Your task to perform on an android device: Clear the cart on bestbuy.com. Search for energizer triple a on bestbuy.com, select the first entry, add it to the cart, then select checkout. Image 0: 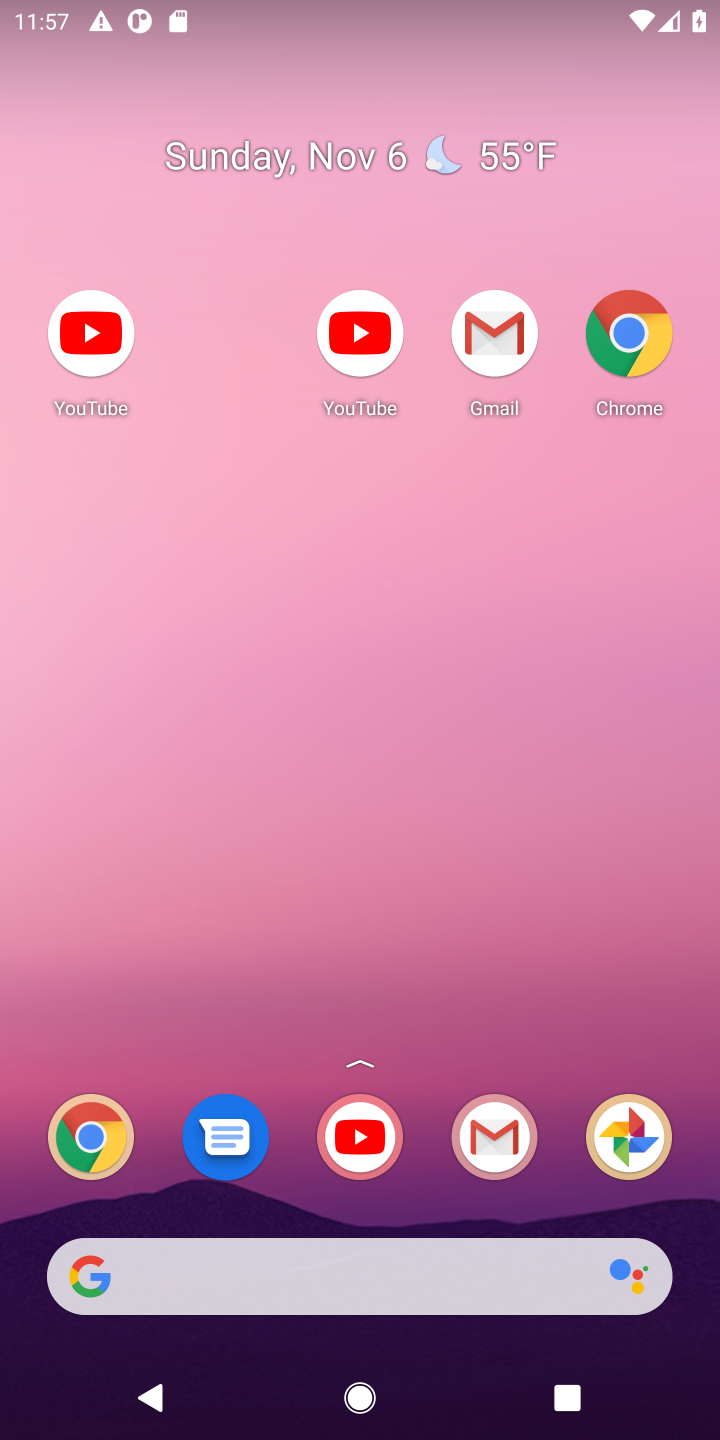
Step 0: drag from (416, 1210) to (358, 206)
Your task to perform on an android device: Clear the cart on bestbuy.com. Search for energizer triple a on bestbuy.com, select the first entry, add it to the cart, then select checkout. Image 1: 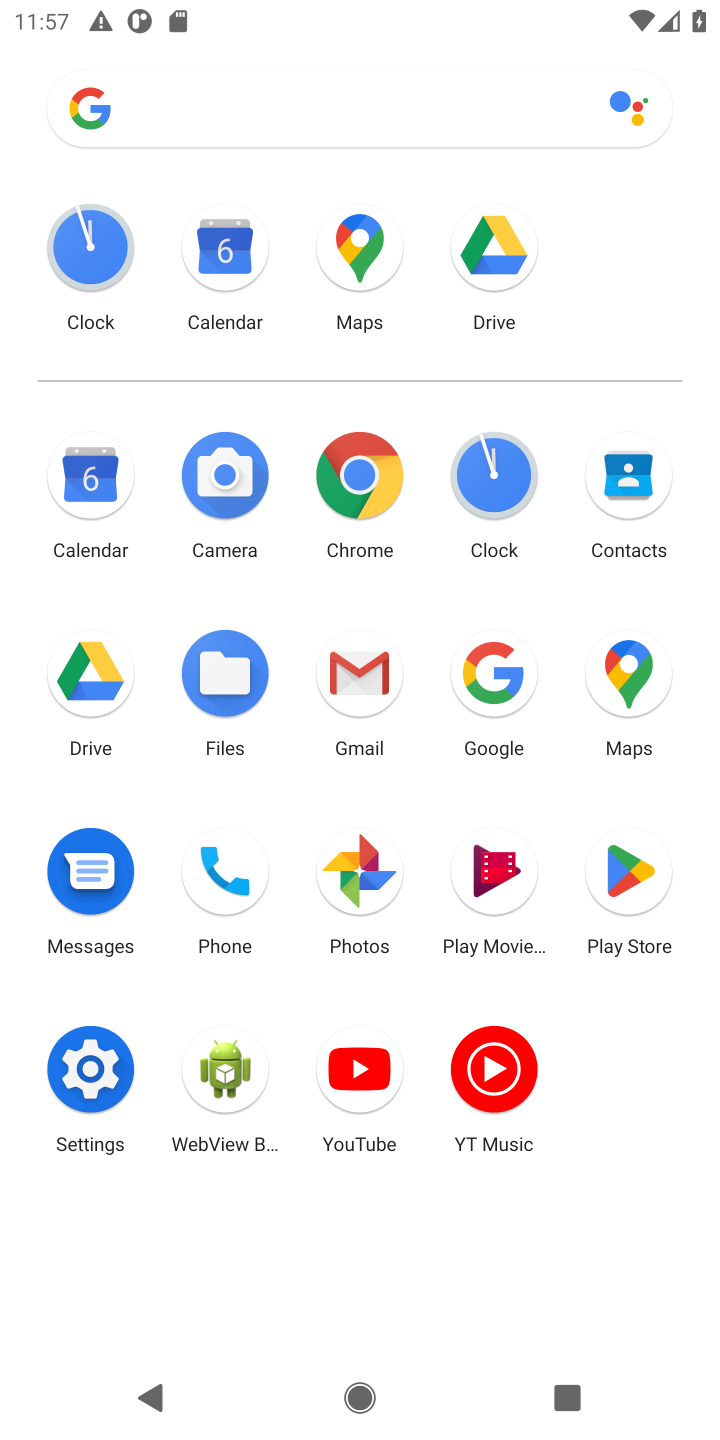
Step 1: click (356, 481)
Your task to perform on an android device: Clear the cart on bestbuy.com. Search for energizer triple a on bestbuy.com, select the first entry, add it to the cart, then select checkout. Image 2: 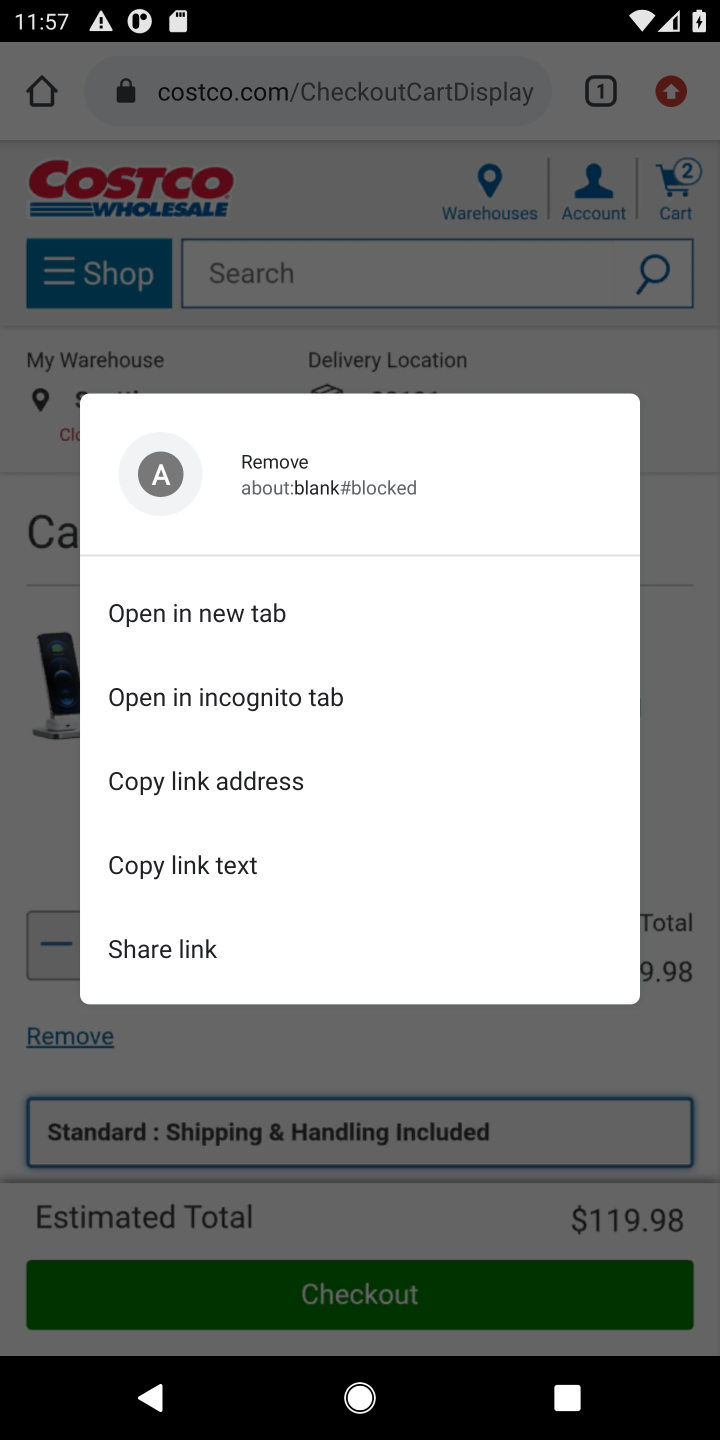
Step 2: press home button
Your task to perform on an android device: Clear the cart on bestbuy.com. Search for energizer triple a on bestbuy.com, select the first entry, add it to the cart, then select checkout. Image 3: 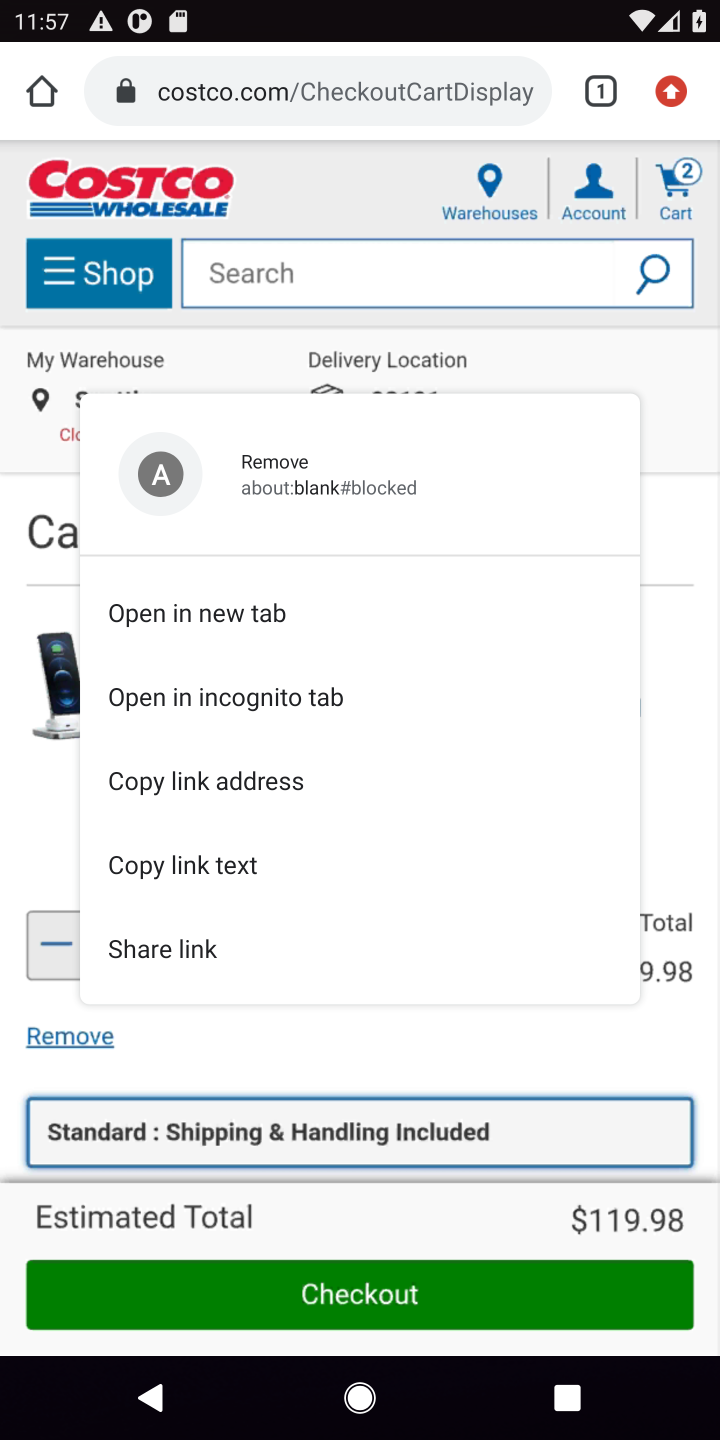
Step 3: press home button
Your task to perform on an android device: Clear the cart on bestbuy.com. Search for energizer triple a on bestbuy.com, select the first entry, add it to the cart, then select checkout. Image 4: 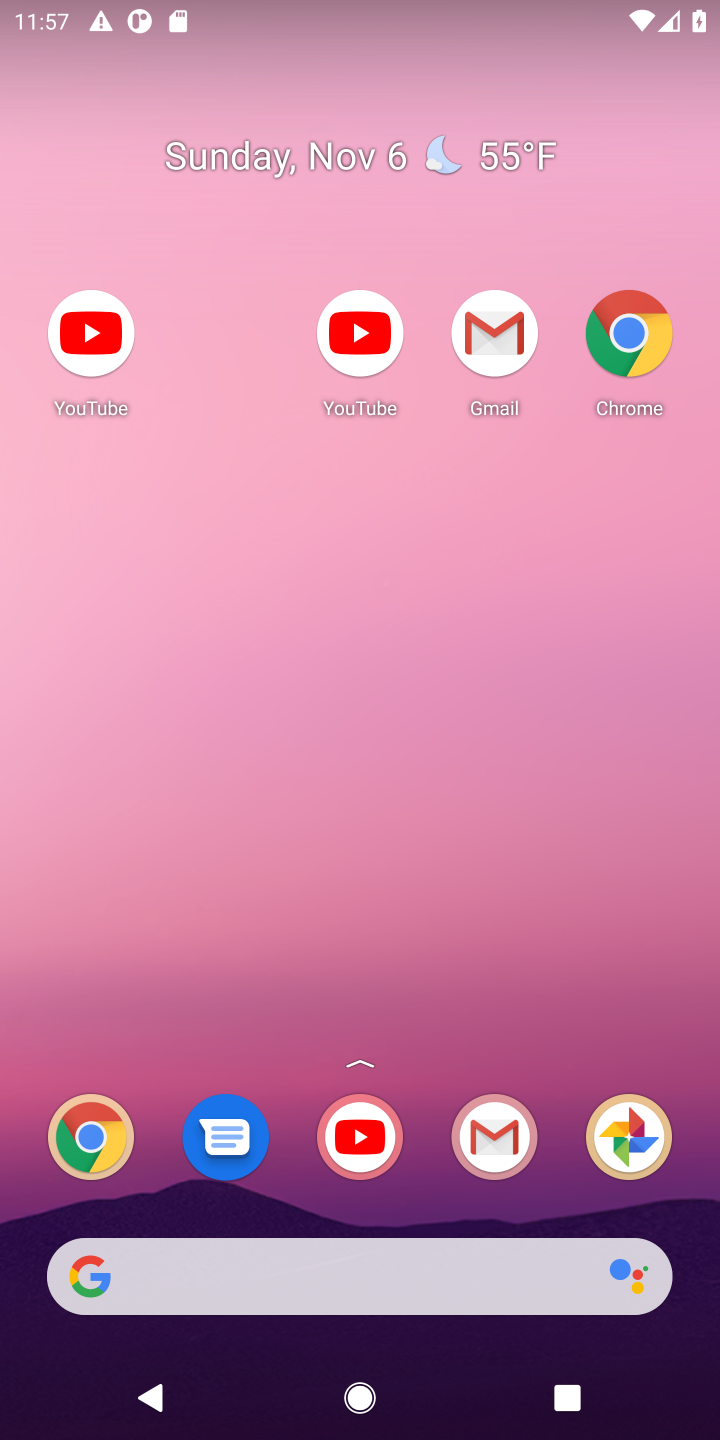
Step 4: drag from (422, 1228) to (397, 207)
Your task to perform on an android device: Clear the cart on bestbuy.com. Search for energizer triple a on bestbuy.com, select the first entry, add it to the cart, then select checkout. Image 5: 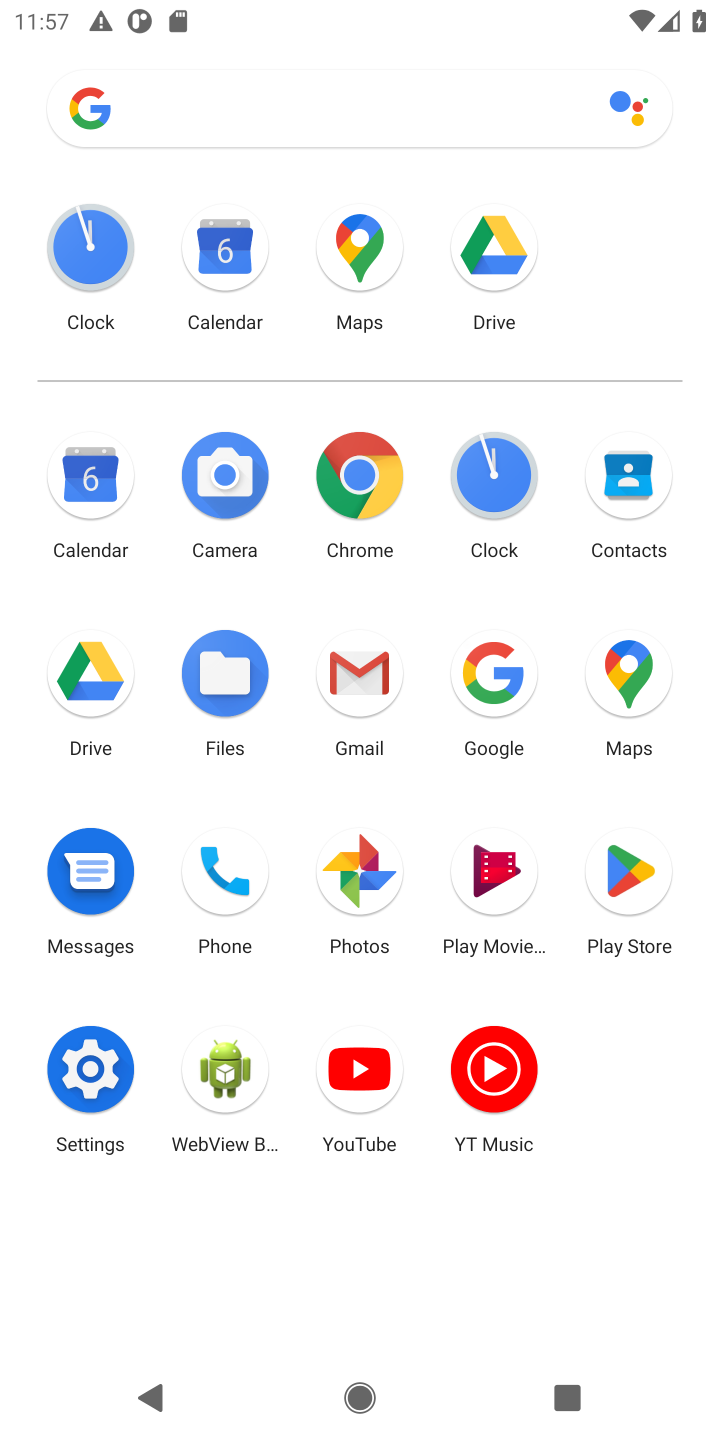
Step 5: click (366, 476)
Your task to perform on an android device: Clear the cart on bestbuy.com. Search for energizer triple a on bestbuy.com, select the first entry, add it to the cart, then select checkout. Image 6: 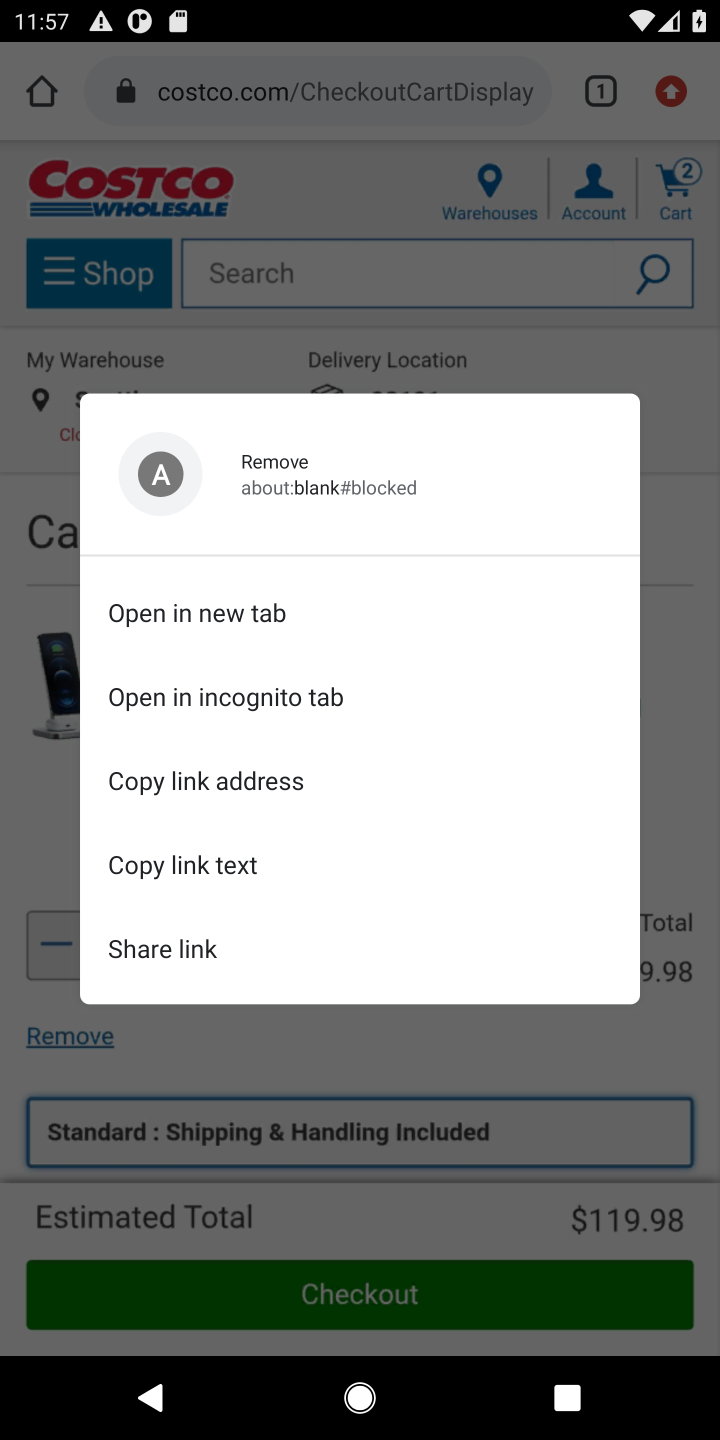
Step 6: click (406, 164)
Your task to perform on an android device: Clear the cart on bestbuy.com. Search for energizer triple a on bestbuy.com, select the first entry, add it to the cart, then select checkout. Image 7: 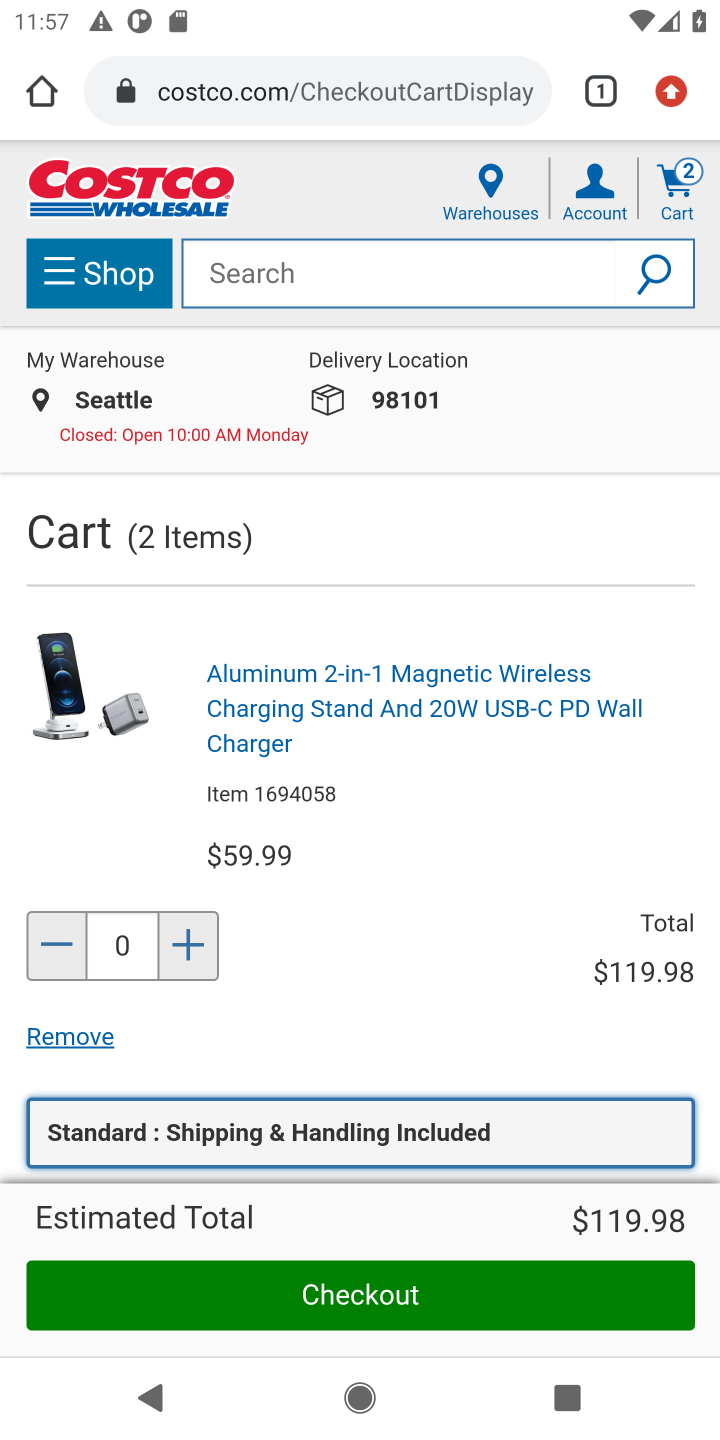
Step 7: click (360, 99)
Your task to perform on an android device: Clear the cart on bestbuy.com. Search for energizer triple a on bestbuy.com, select the first entry, add it to the cart, then select checkout. Image 8: 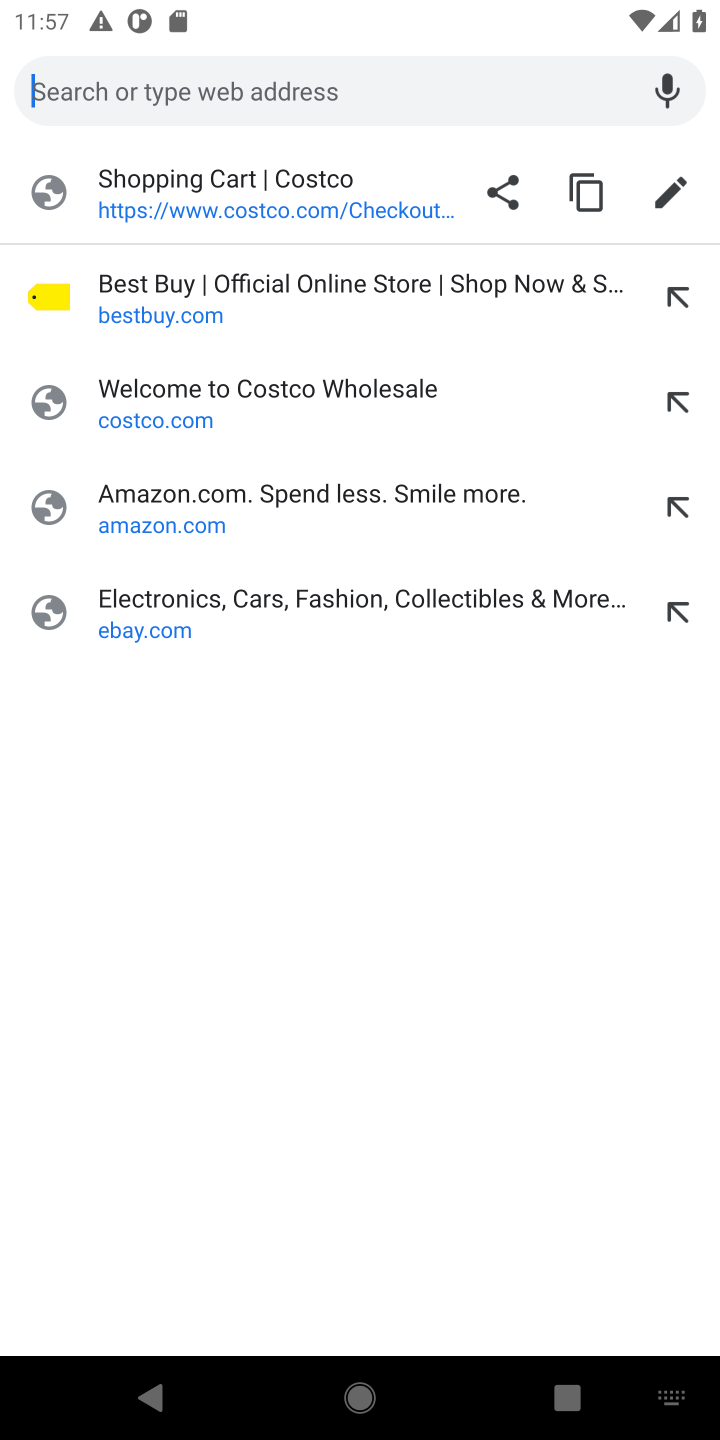
Step 8: type ""
Your task to perform on an android device: Clear the cart on bestbuy.com. Search for energizer triple a on bestbuy.com, select the first entry, add it to the cart, then select checkout. Image 9: 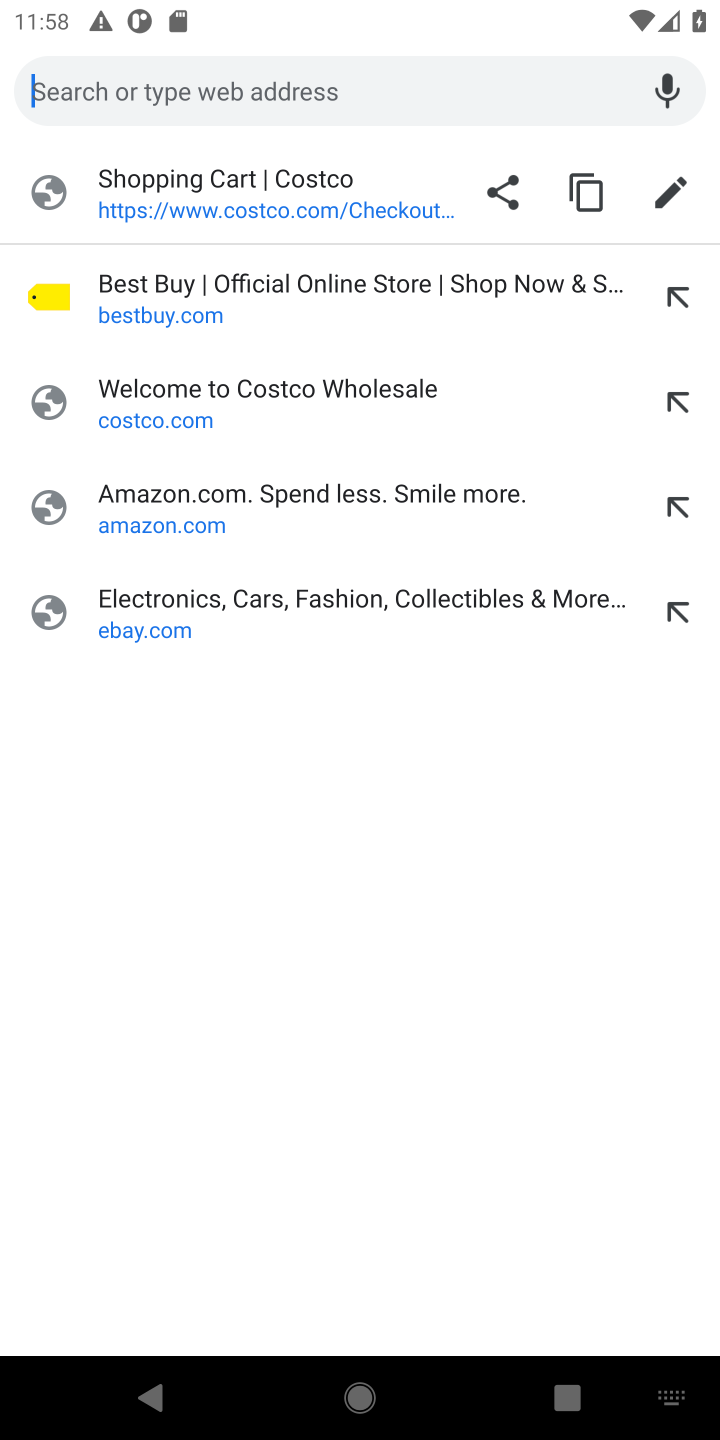
Step 9: type "bestbuy.com"
Your task to perform on an android device: Clear the cart on bestbuy.com. Search for energizer triple a on bestbuy.com, select the first entry, add it to the cart, then select checkout. Image 10: 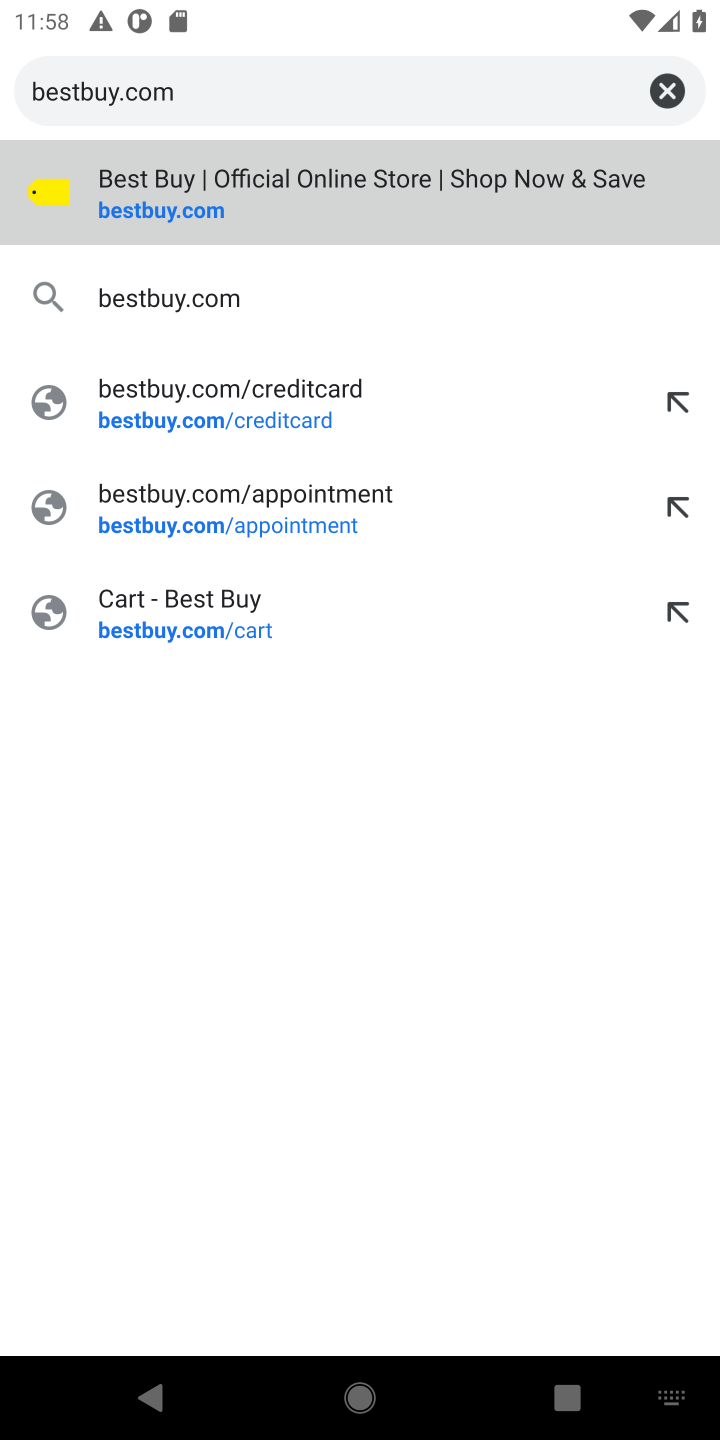
Step 10: press enter
Your task to perform on an android device: Clear the cart on bestbuy.com. Search for energizer triple a on bestbuy.com, select the first entry, add it to the cart, then select checkout. Image 11: 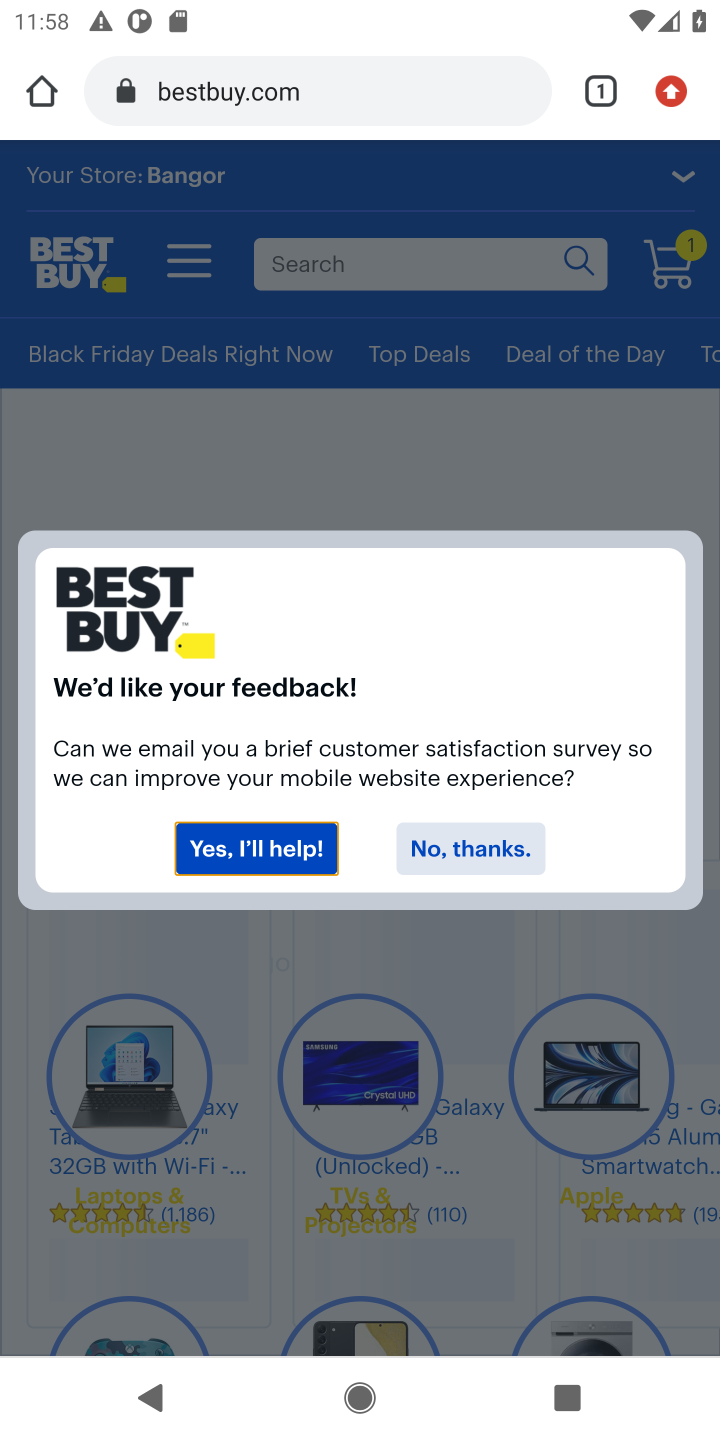
Step 11: click (450, 858)
Your task to perform on an android device: Clear the cart on bestbuy.com. Search for energizer triple a on bestbuy.com, select the first entry, add it to the cart, then select checkout. Image 12: 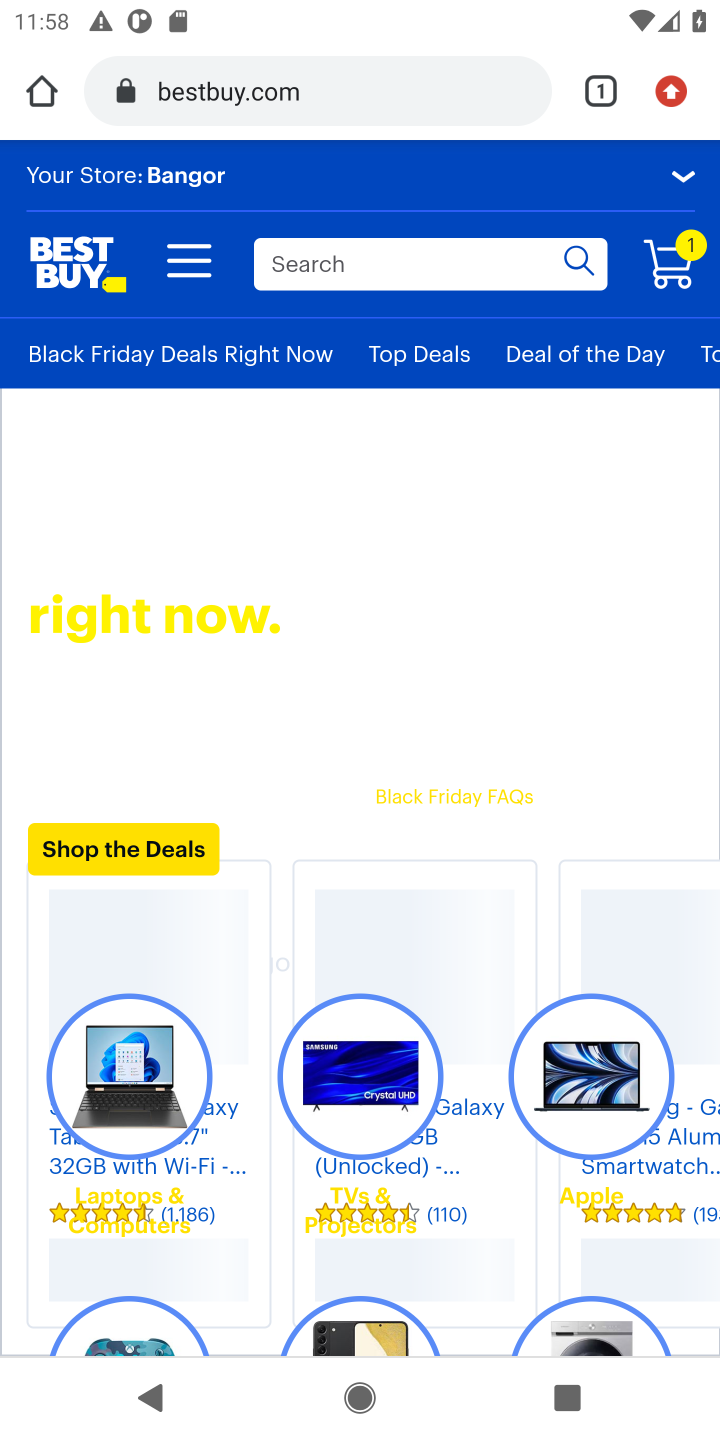
Step 12: click (681, 259)
Your task to perform on an android device: Clear the cart on bestbuy.com. Search for energizer triple a on bestbuy.com, select the first entry, add it to the cart, then select checkout. Image 13: 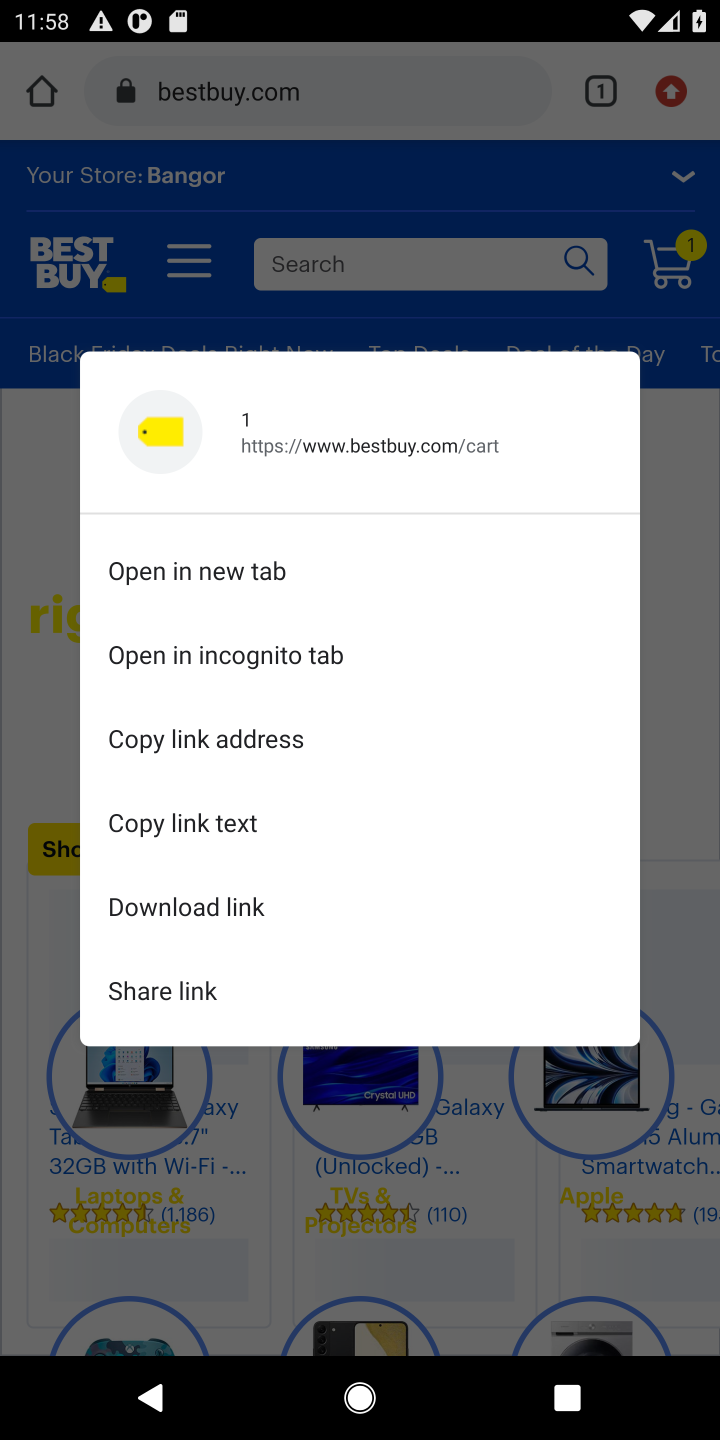
Step 13: click (691, 391)
Your task to perform on an android device: Clear the cart on bestbuy.com. Search for energizer triple a on bestbuy.com, select the first entry, add it to the cart, then select checkout. Image 14: 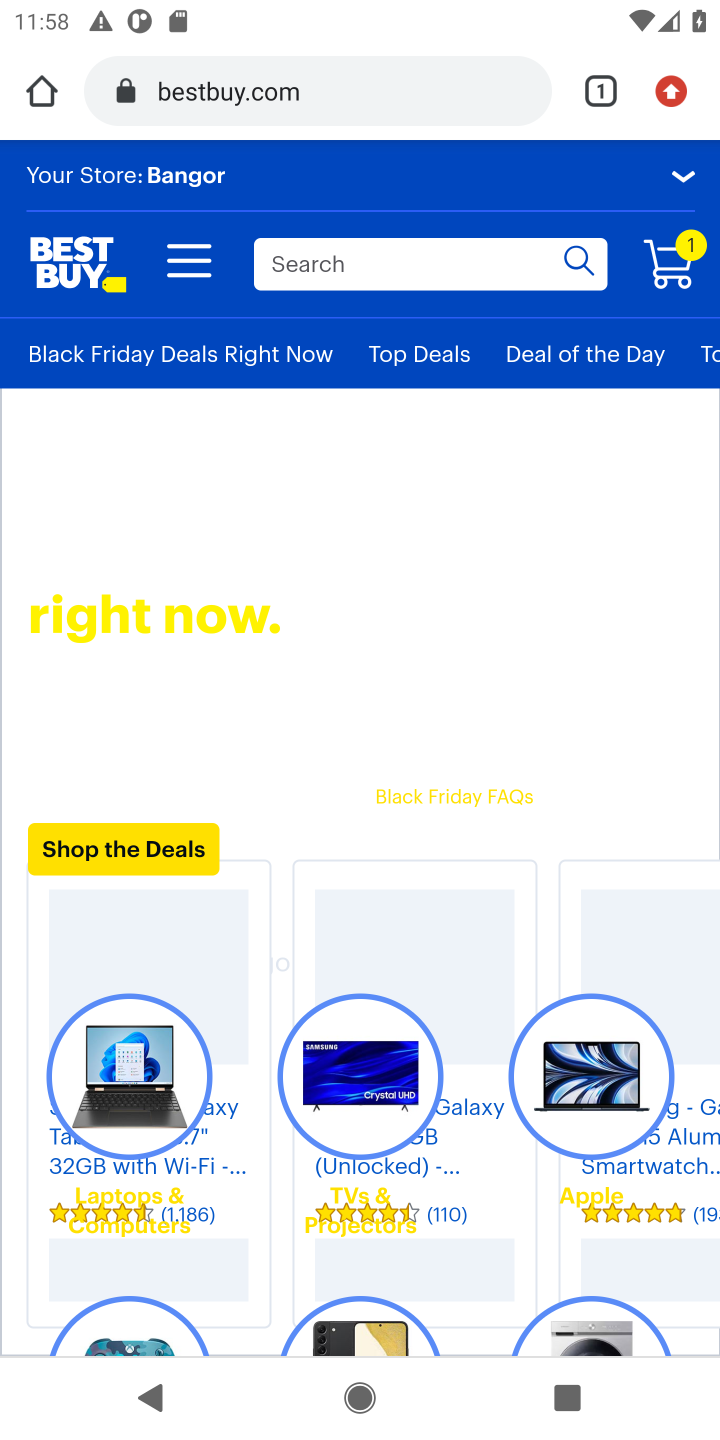
Step 14: click (695, 259)
Your task to perform on an android device: Clear the cart on bestbuy.com. Search for energizer triple a on bestbuy.com, select the first entry, add it to the cart, then select checkout. Image 15: 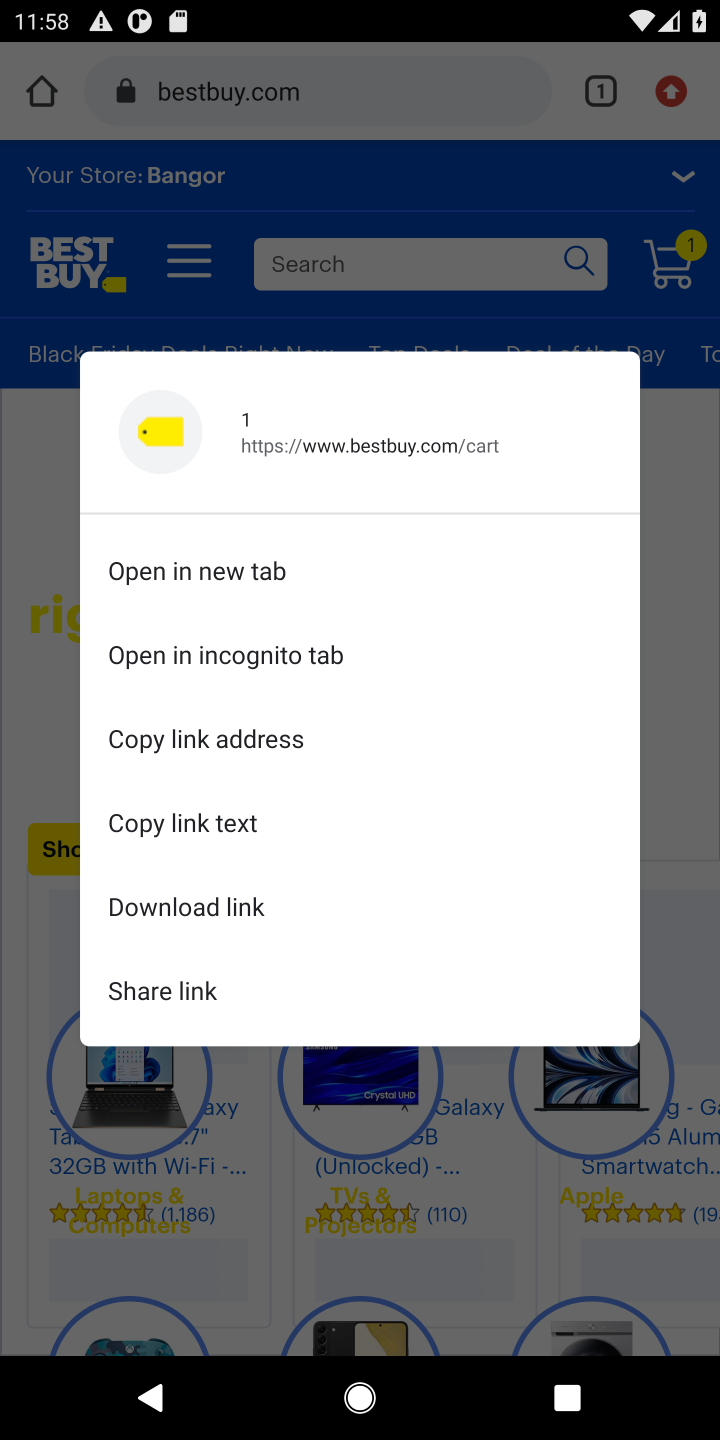
Step 15: click (667, 258)
Your task to perform on an android device: Clear the cart on bestbuy.com. Search for energizer triple a on bestbuy.com, select the first entry, add it to the cart, then select checkout. Image 16: 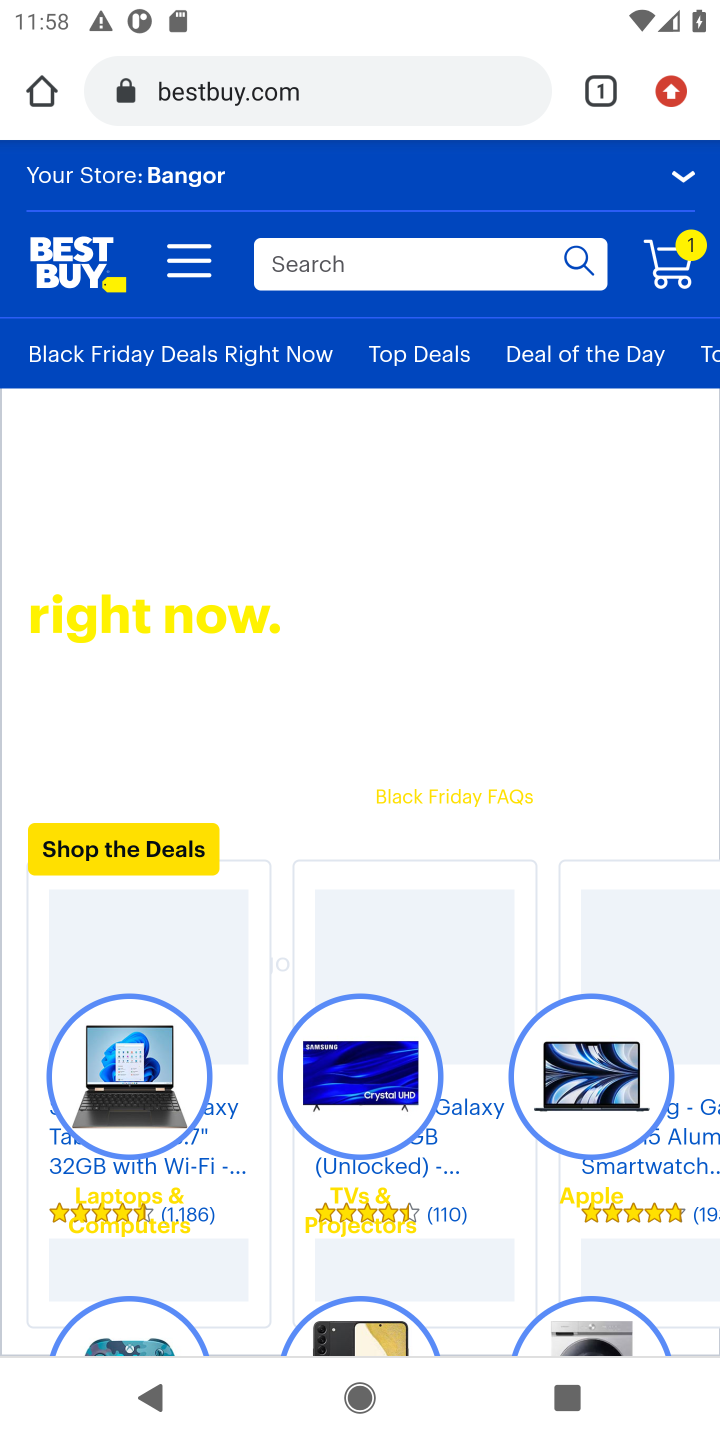
Step 16: click (667, 258)
Your task to perform on an android device: Clear the cart on bestbuy.com. Search for energizer triple a on bestbuy.com, select the first entry, add it to the cart, then select checkout. Image 17: 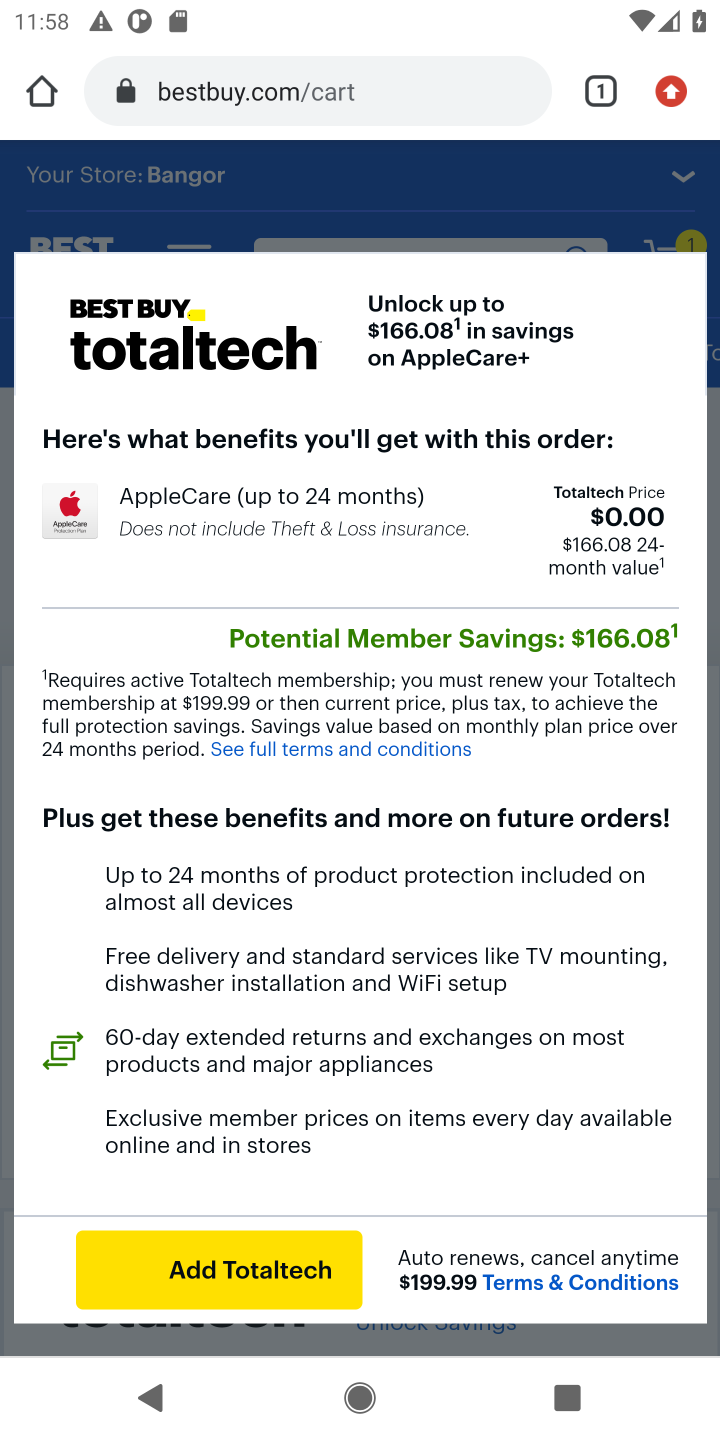
Step 17: drag from (544, 960) to (525, 688)
Your task to perform on an android device: Clear the cart on bestbuy.com. Search for energizer triple a on bestbuy.com, select the first entry, add it to the cart, then select checkout. Image 18: 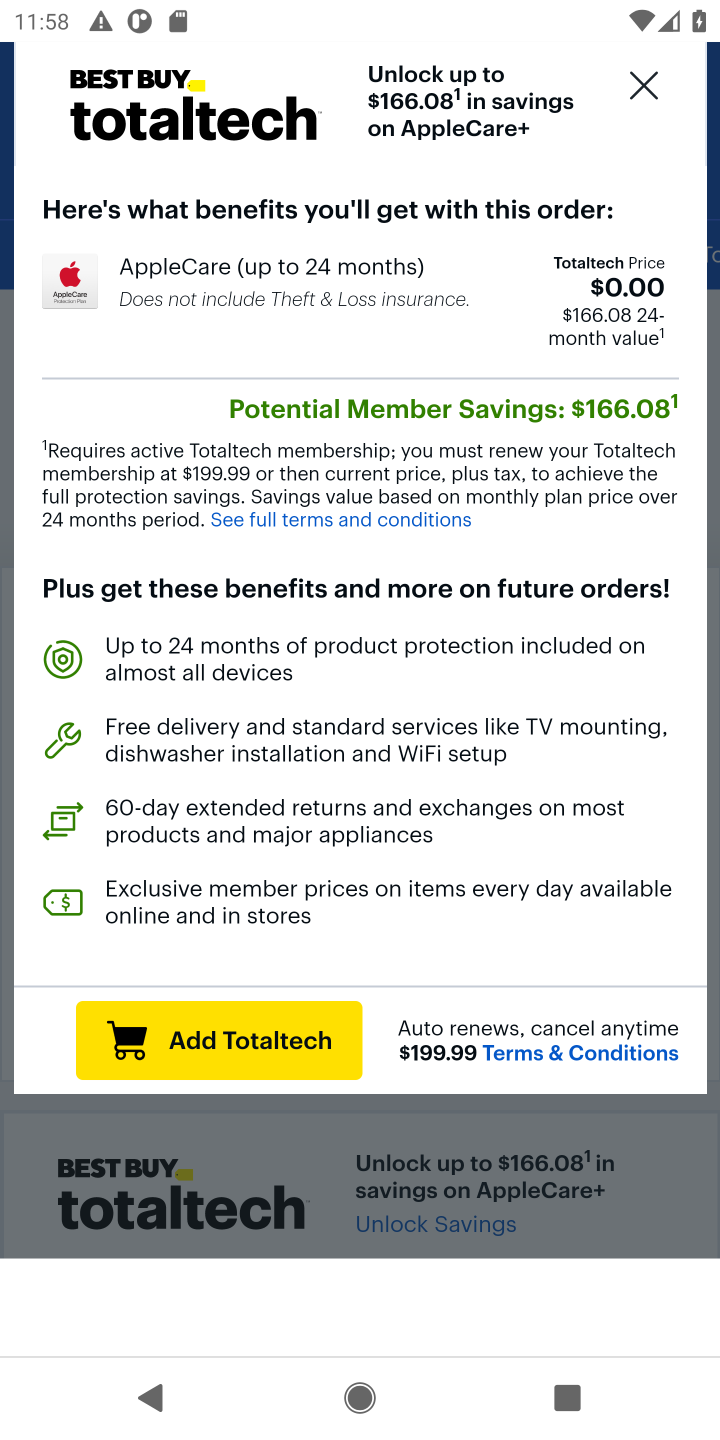
Step 18: click (647, 84)
Your task to perform on an android device: Clear the cart on bestbuy.com. Search for energizer triple a on bestbuy.com, select the first entry, add it to the cart, then select checkout. Image 19: 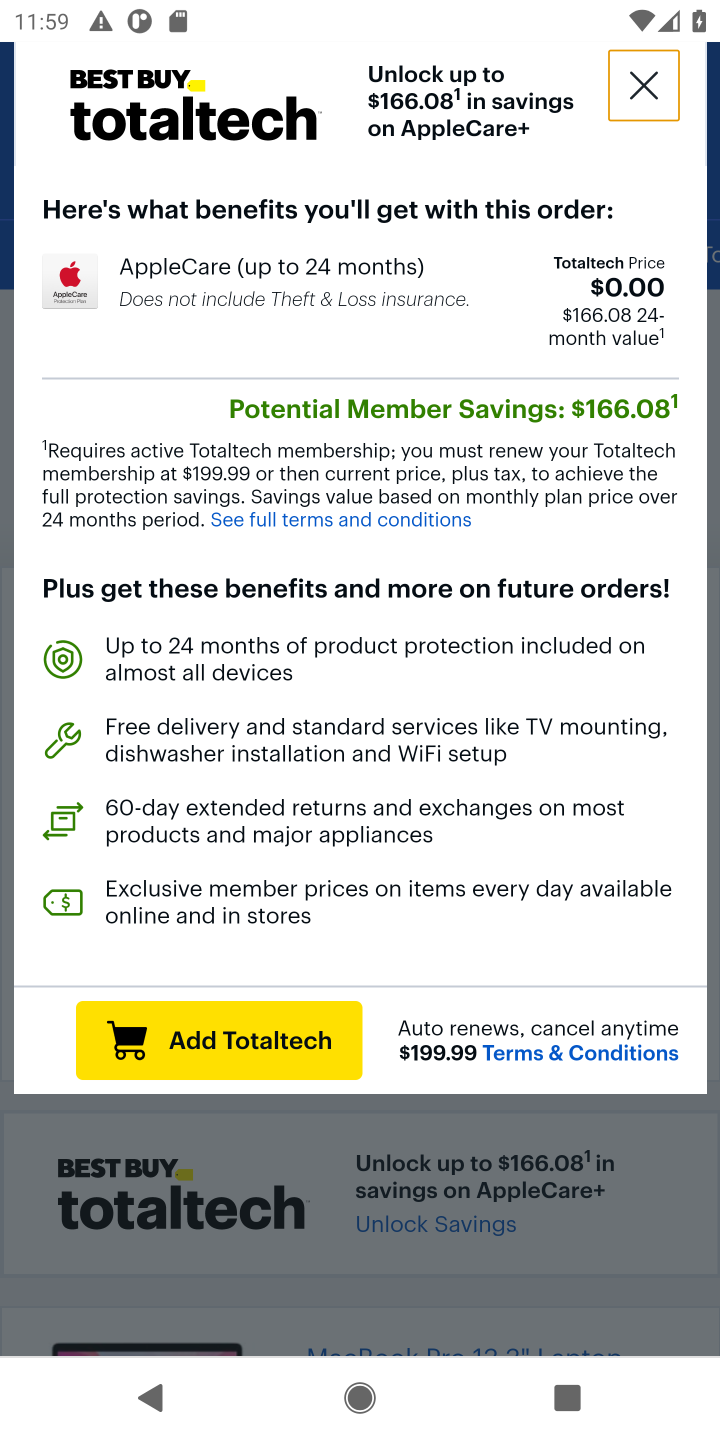
Step 19: click (647, 84)
Your task to perform on an android device: Clear the cart on bestbuy.com. Search for energizer triple a on bestbuy.com, select the first entry, add it to the cart, then select checkout. Image 20: 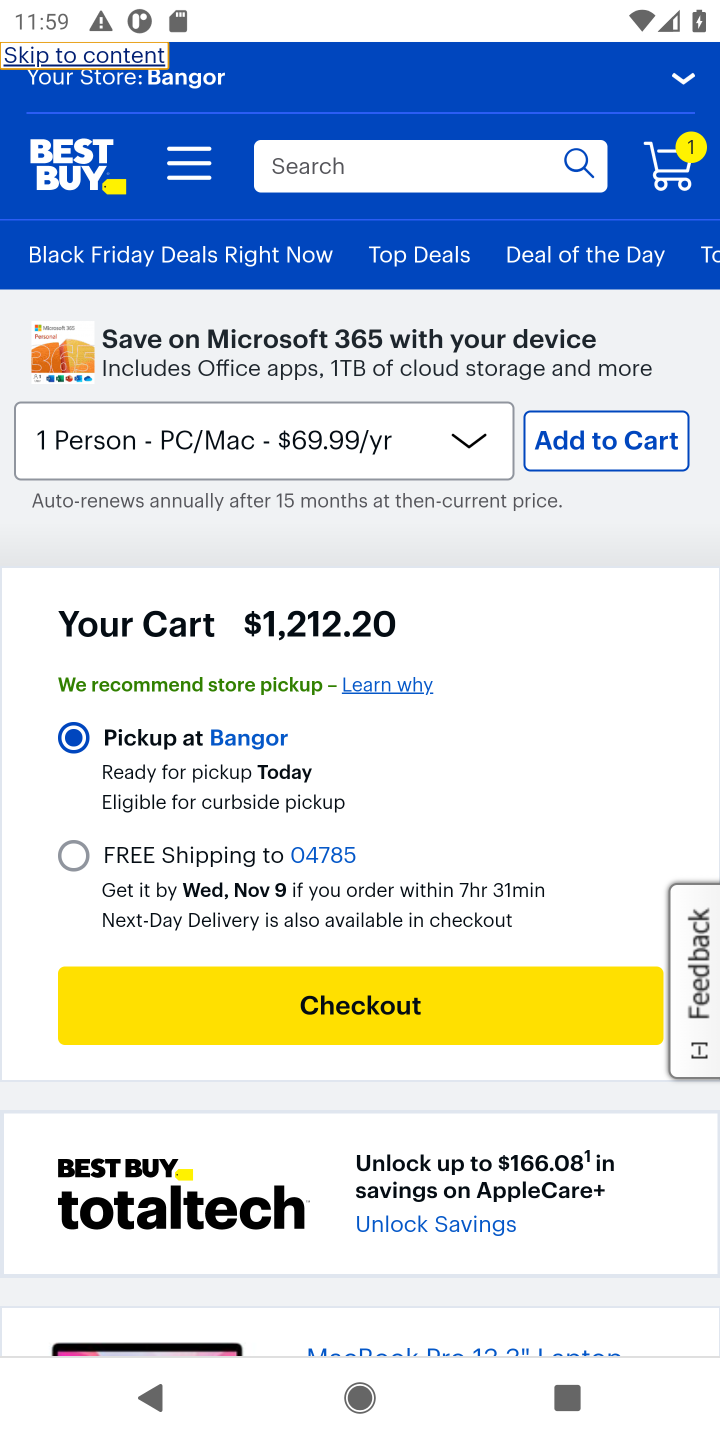
Step 20: drag from (501, 912) to (514, 393)
Your task to perform on an android device: Clear the cart on bestbuy.com. Search for energizer triple a on bestbuy.com, select the first entry, add it to the cart, then select checkout. Image 21: 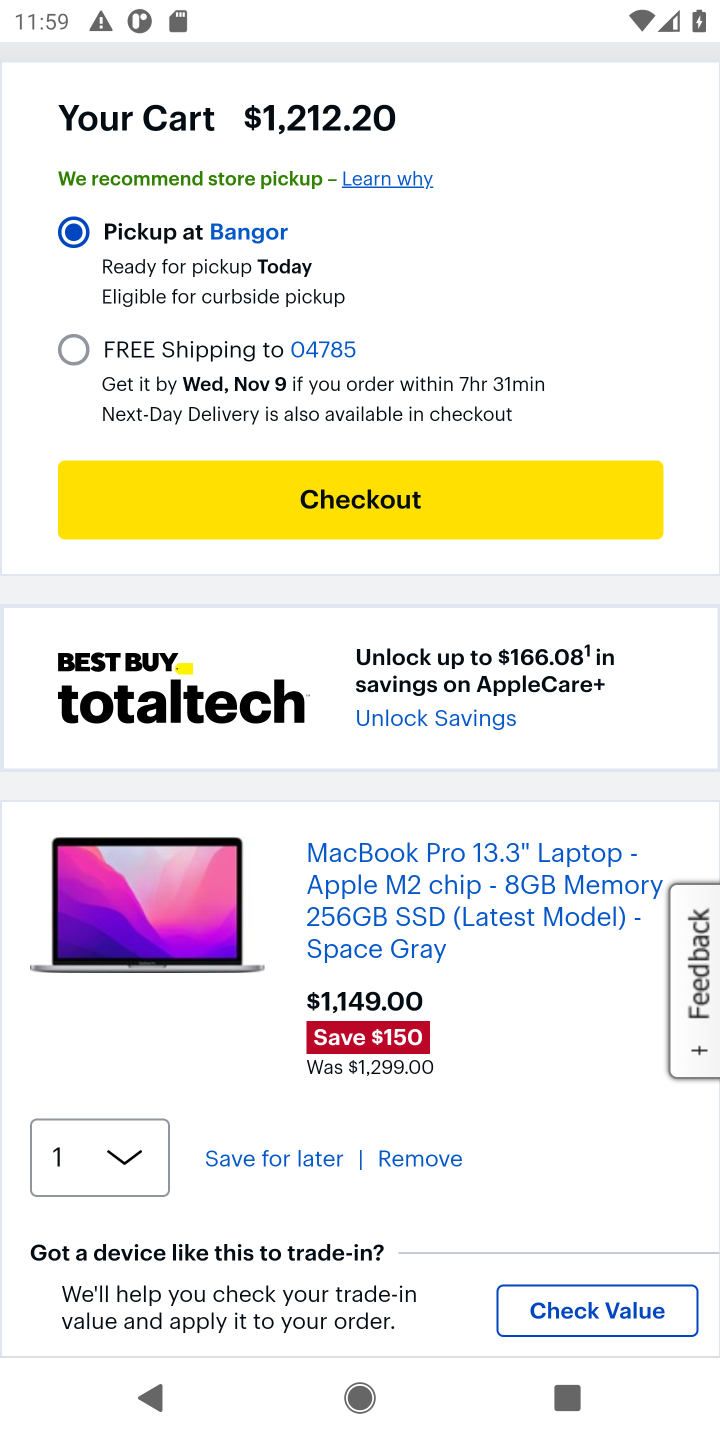
Step 21: click (405, 1159)
Your task to perform on an android device: Clear the cart on bestbuy.com. Search for energizer triple a on bestbuy.com, select the first entry, add it to the cart, then select checkout. Image 22: 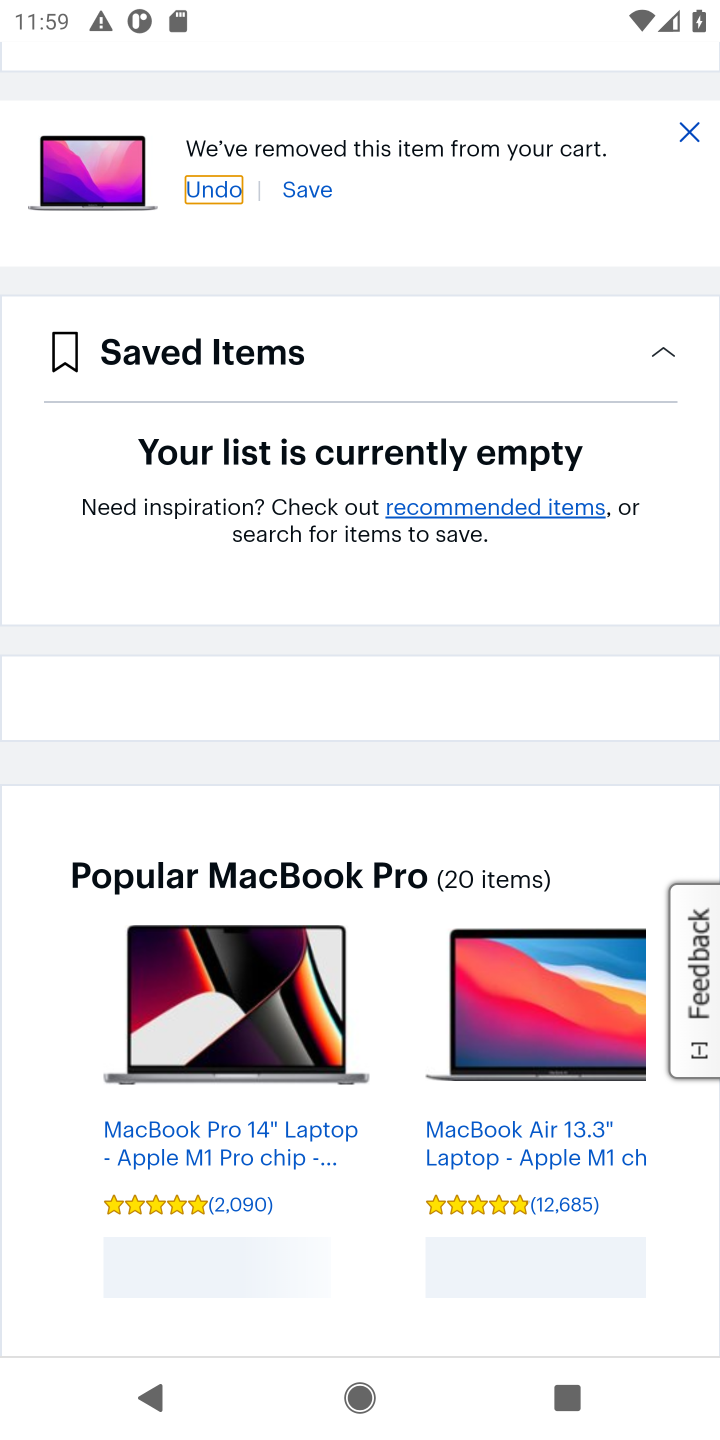
Step 22: drag from (462, 235) to (443, 965)
Your task to perform on an android device: Clear the cart on bestbuy.com. Search for energizer triple a on bestbuy.com, select the first entry, add it to the cart, then select checkout. Image 23: 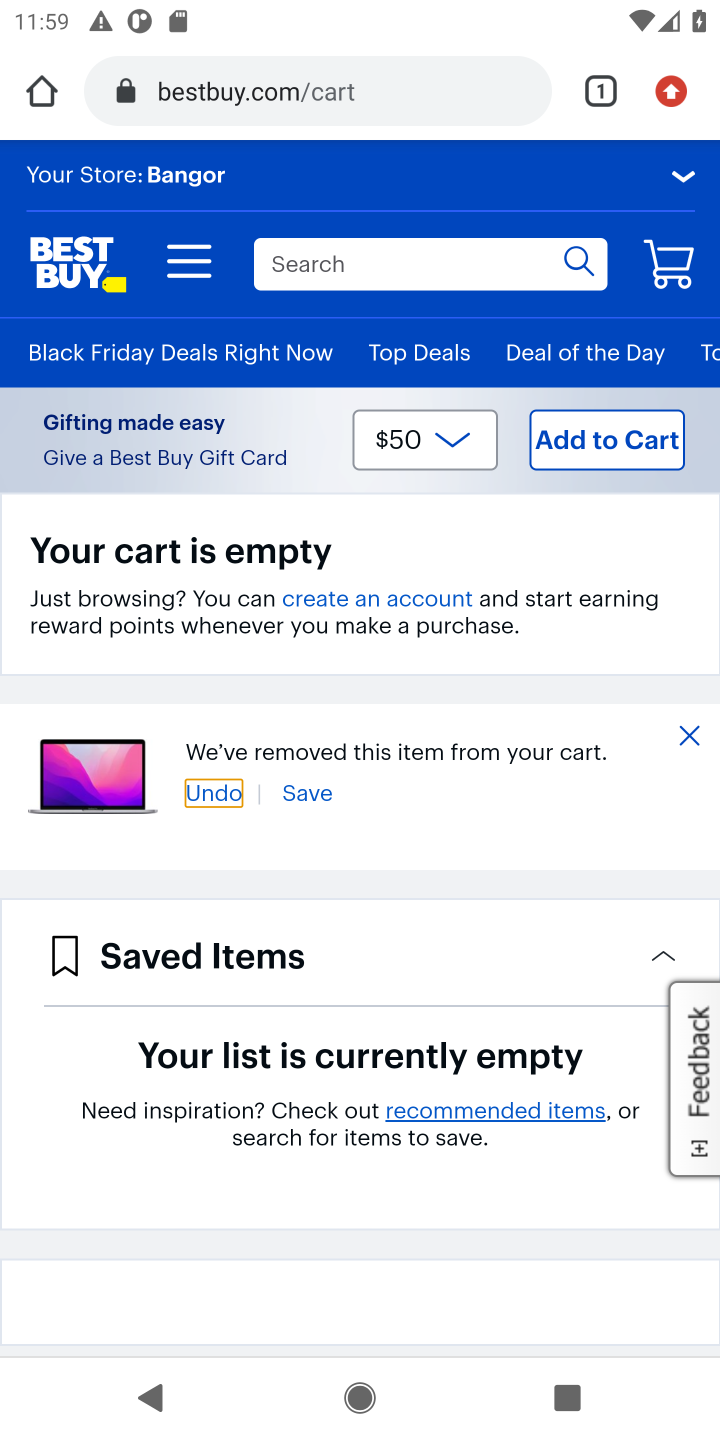
Step 23: click (467, 255)
Your task to perform on an android device: Clear the cart on bestbuy.com. Search for energizer triple a on bestbuy.com, select the first entry, add it to the cart, then select checkout. Image 24: 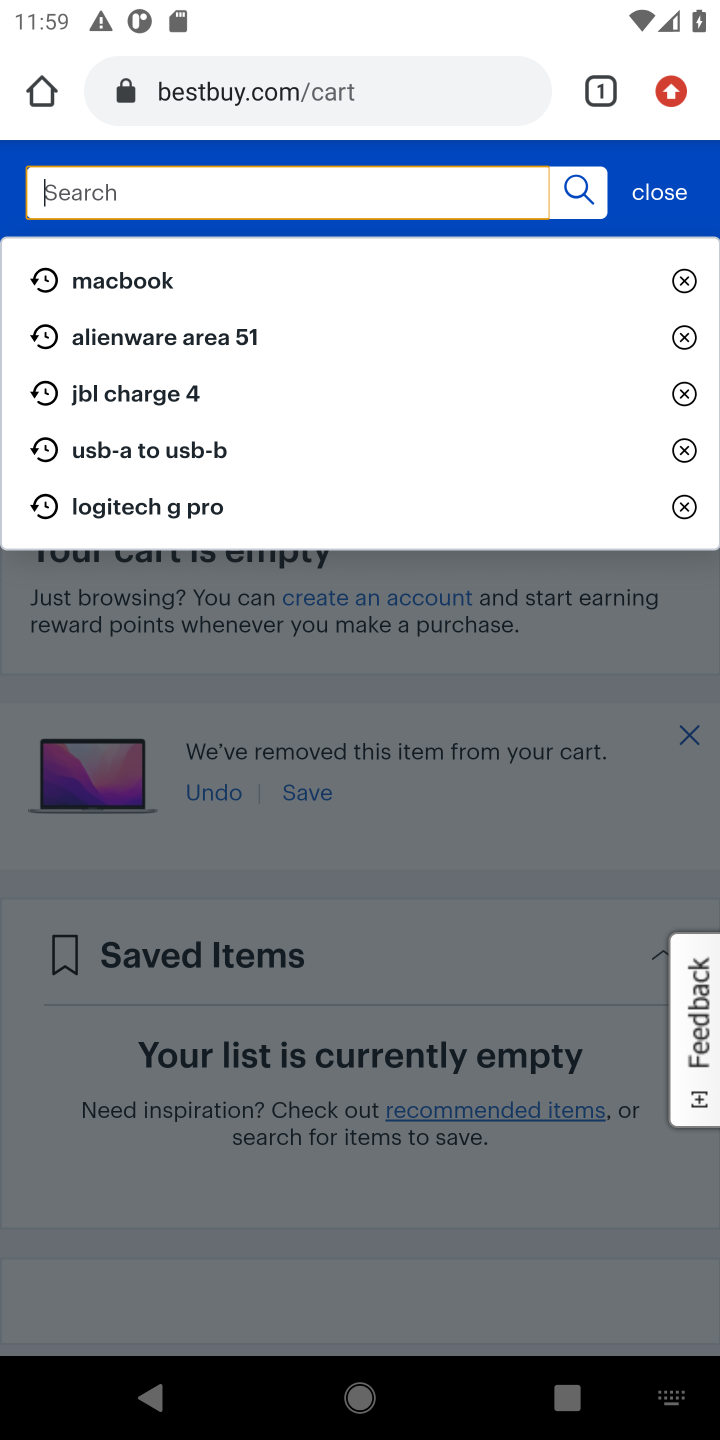
Step 24: type "energizer triple"
Your task to perform on an android device: Clear the cart on bestbuy.com. Search for energizer triple a on bestbuy.com, select the first entry, add it to the cart, then select checkout. Image 25: 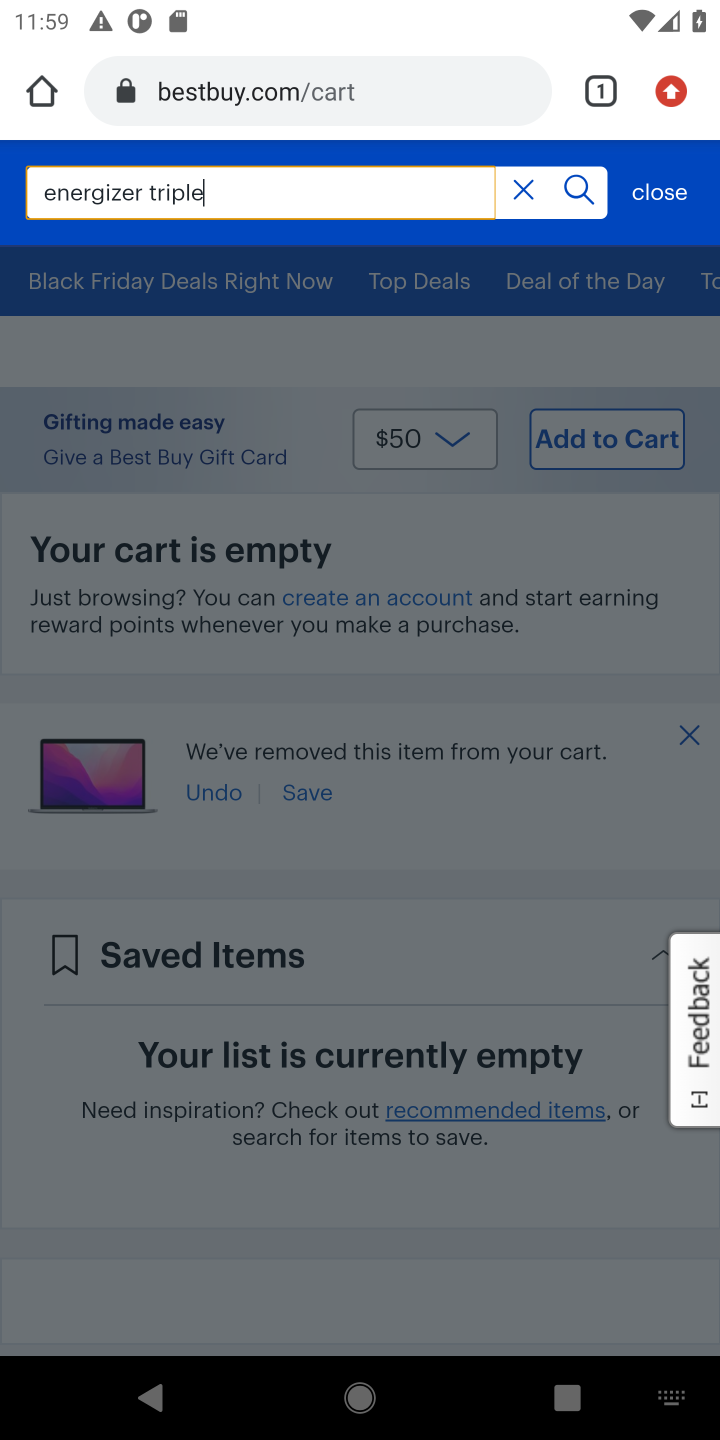
Step 25: press enter
Your task to perform on an android device: Clear the cart on bestbuy.com. Search for energizer triple a on bestbuy.com, select the first entry, add it to the cart, then select checkout. Image 26: 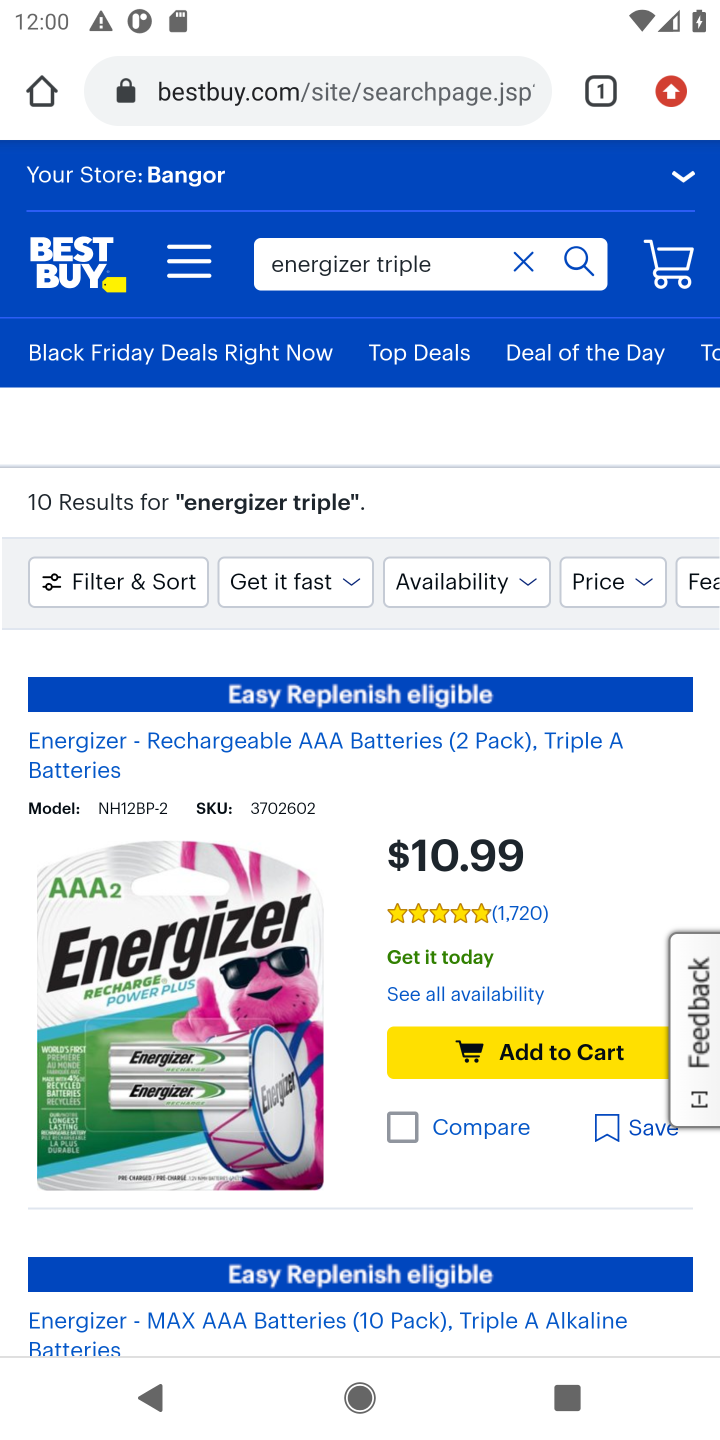
Step 26: click (475, 1060)
Your task to perform on an android device: Clear the cart on bestbuy.com. Search for energizer triple a on bestbuy.com, select the first entry, add it to the cart, then select checkout. Image 27: 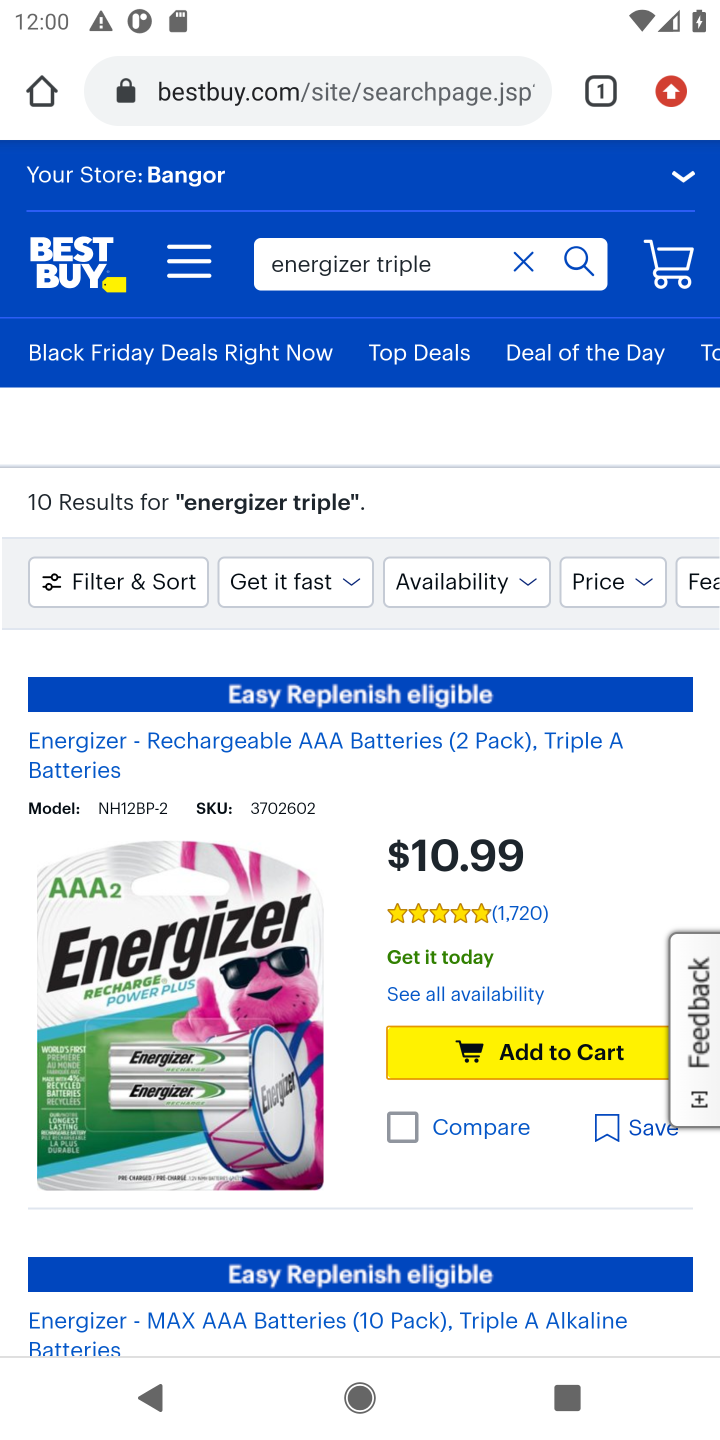
Step 27: click (475, 1060)
Your task to perform on an android device: Clear the cart on bestbuy.com. Search for energizer triple a on bestbuy.com, select the first entry, add it to the cart, then select checkout. Image 28: 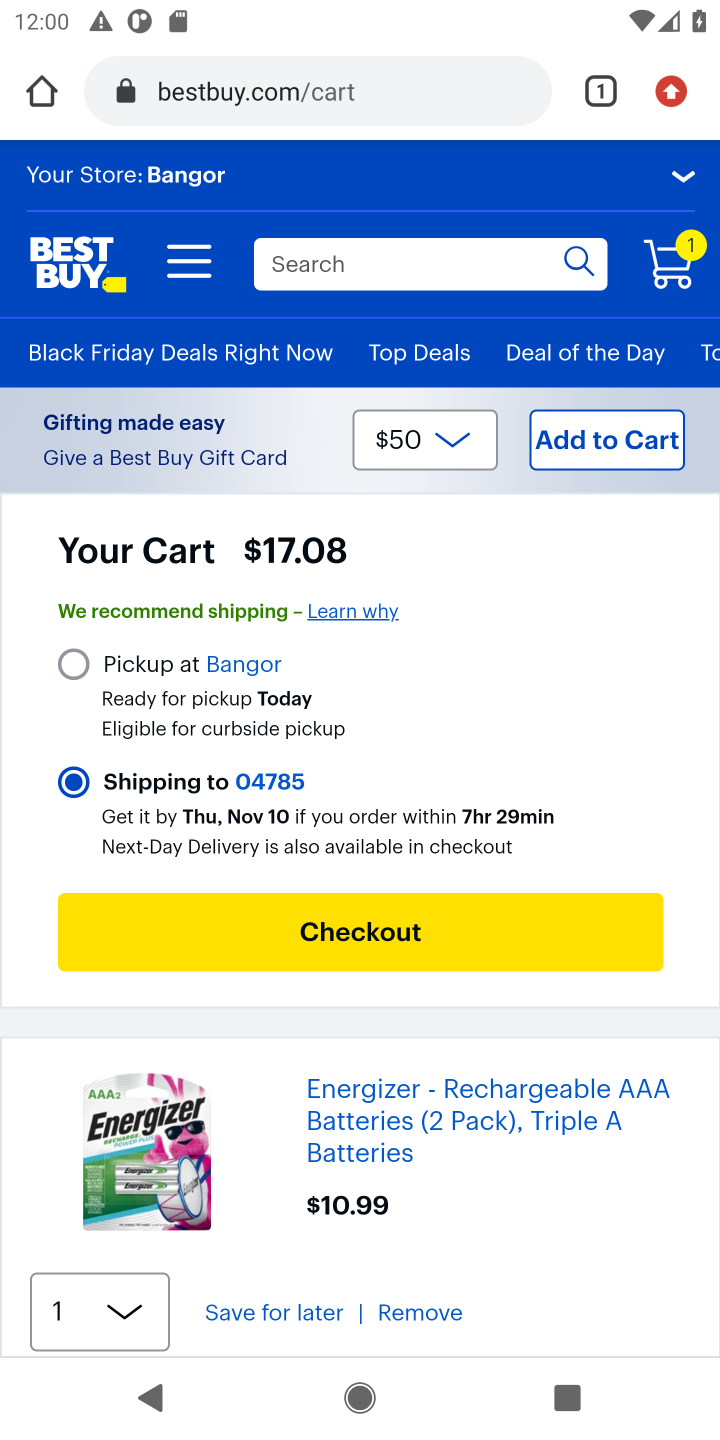
Step 28: click (383, 919)
Your task to perform on an android device: Clear the cart on bestbuy.com. Search for energizer triple a on bestbuy.com, select the first entry, add it to the cart, then select checkout. Image 29: 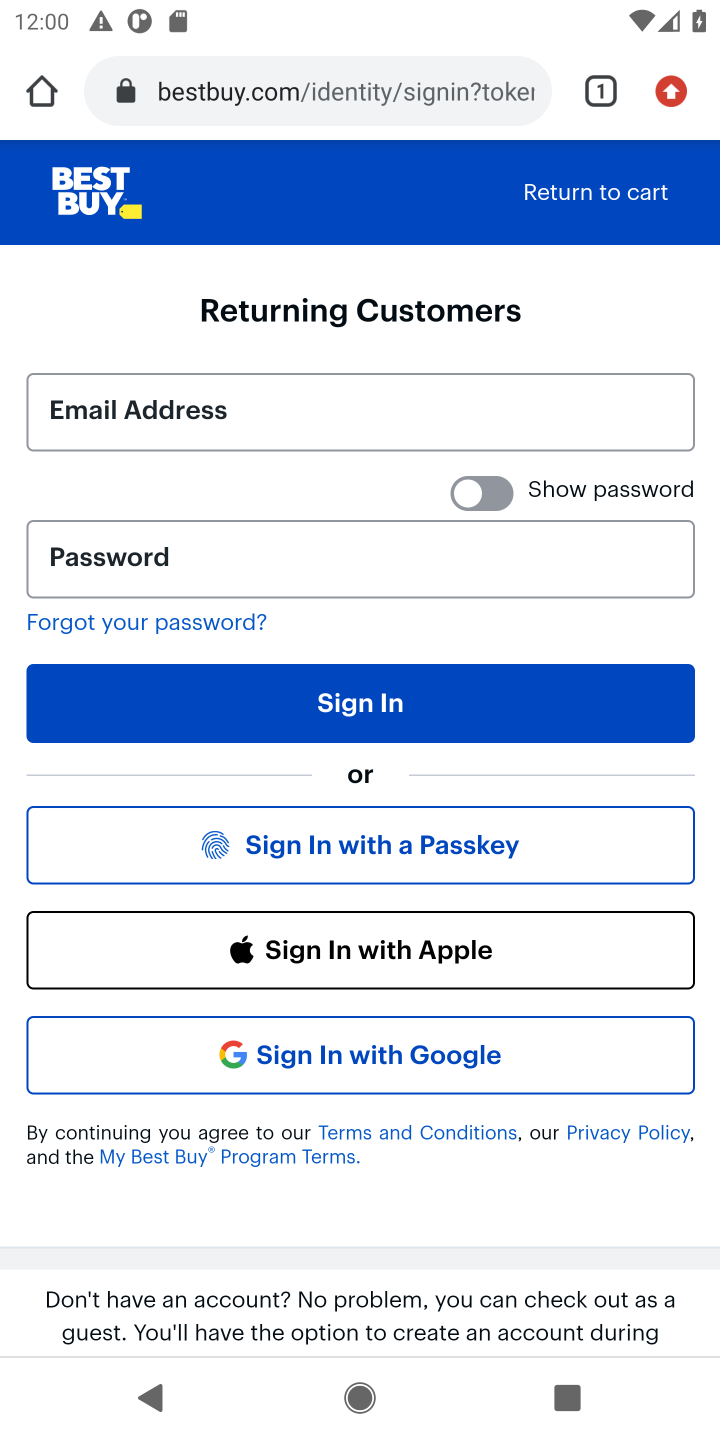
Step 29: task complete